Your task to perform on an android device: turn notification dots off Image 0: 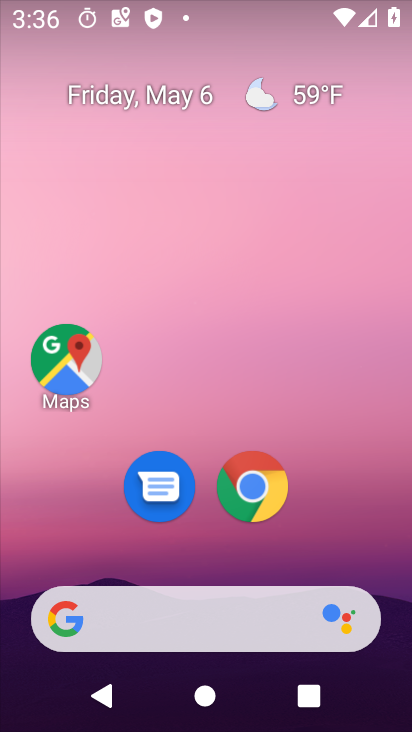
Step 0: drag from (318, 538) to (211, 51)
Your task to perform on an android device: turn notification dots off Image 1: 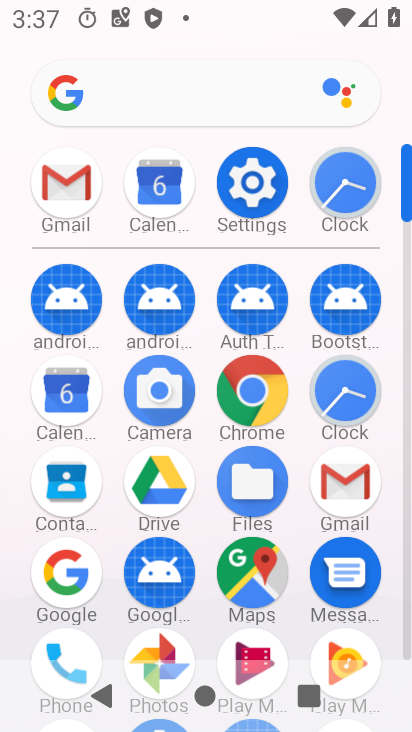
Step 1: click (254, 188)
Your task to perform on an android device: turn notification dots off Image 2: 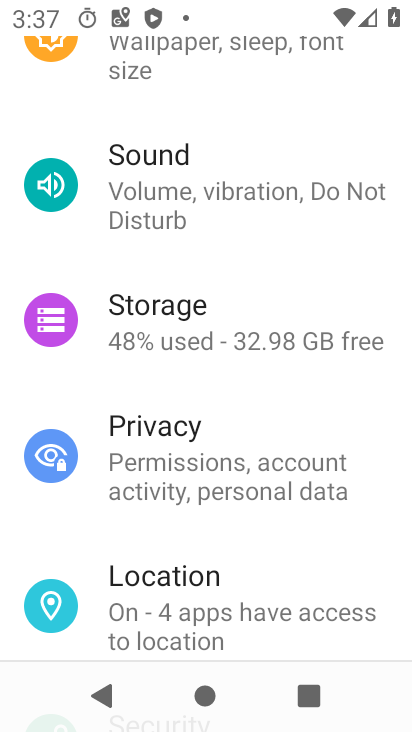
Step 2: drag from (231, 271) to (257, 575)
Your task to perform on an android device: turn notification dots off Image 3: 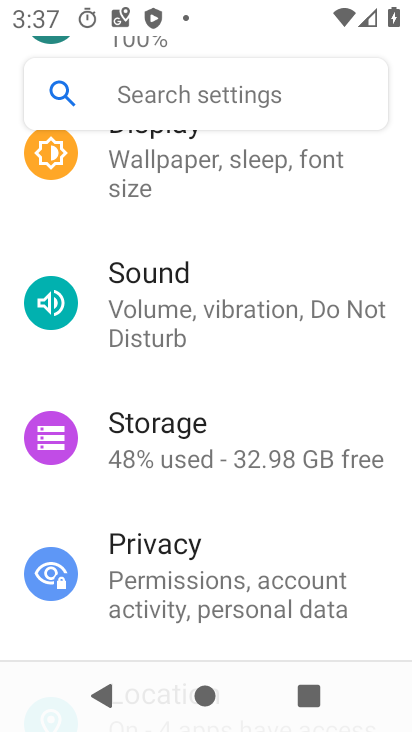
Step 3: drag from (200, 218) to (358, 715)
Your task to perform on an android device: turn notification dots off Image 4: 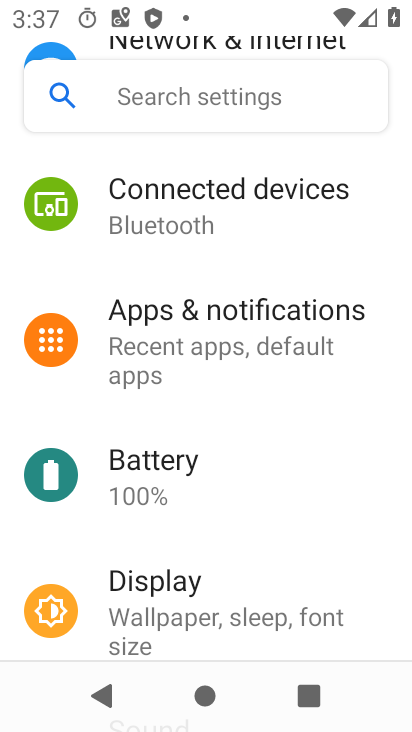
Step 4: click (250, 315)
Your task to perform on an android device: turn notification dots off Image 5: 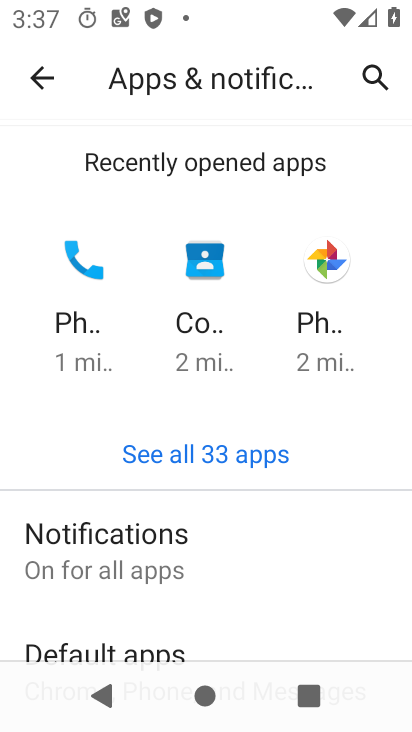
Step 5: click (119, 529)
Your task to perform on an android device: turn notification dots off Image 6: 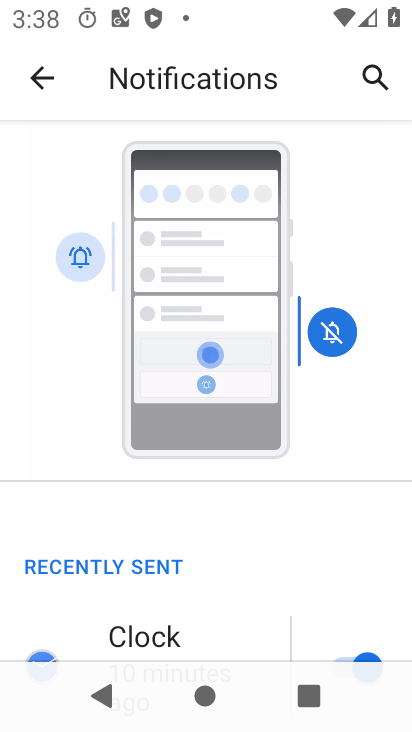
Step 6: drag from (269, 549) to (234, 195)
Your task to perform on an android device: turn notification dots off Image 7: 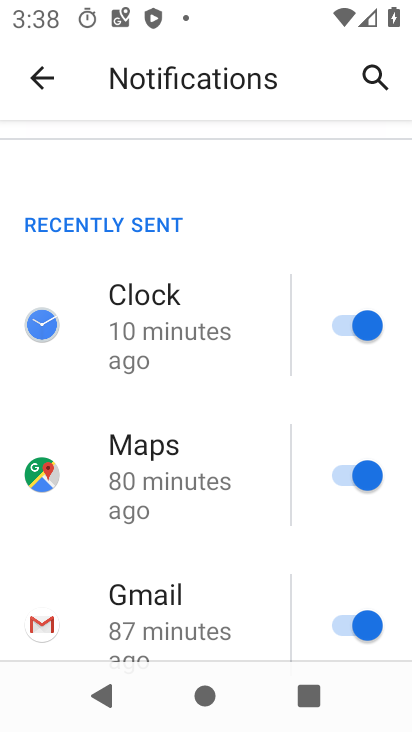
Step 7: drag from (226, 579) to (183, 128)
Your task to perform on an android device: turn notification dots off Image 8: 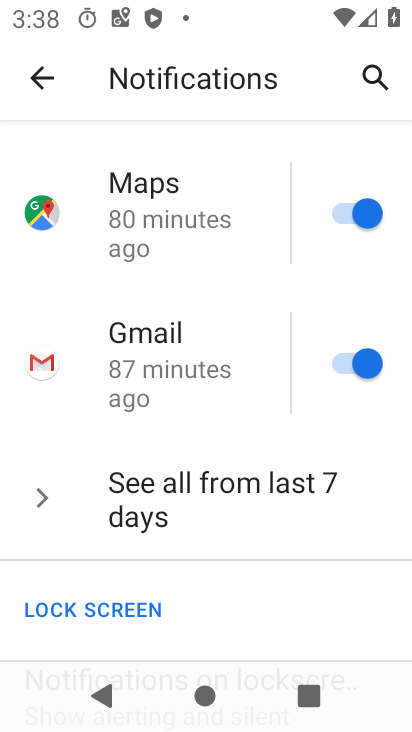
Step 8: drag from (176, 530) to (169, 201)
Your task to perform on an android device: turn notification dots off Image 9: 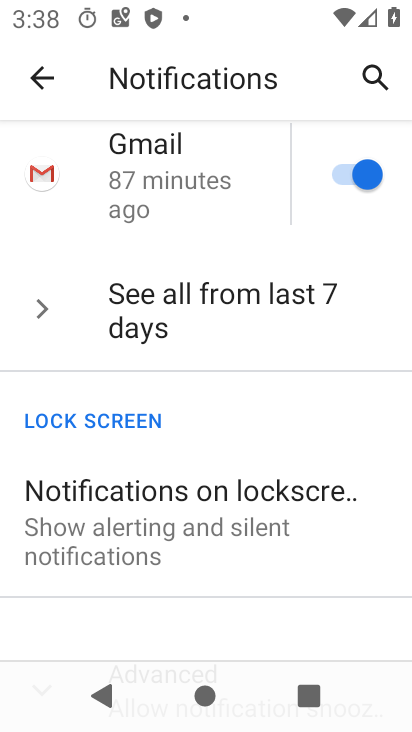
Step 9: drag from (197, 515) to (183, 198)
Your task to perform on an android device: turn notification dots off Image 10: 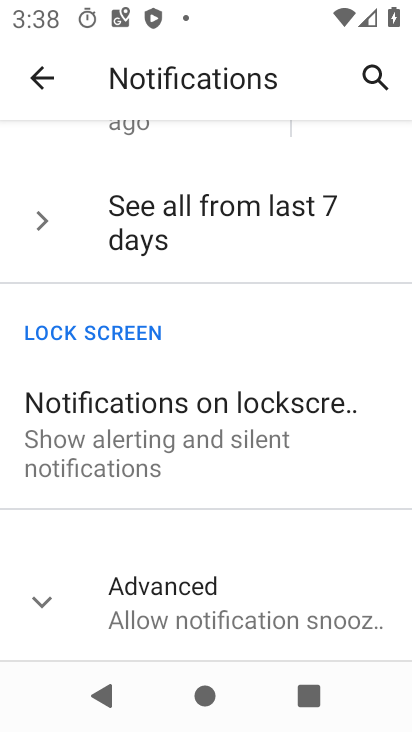
Step 10: click (66, 599)
Your task to perform on an android device: turn notification dots off Image 11: 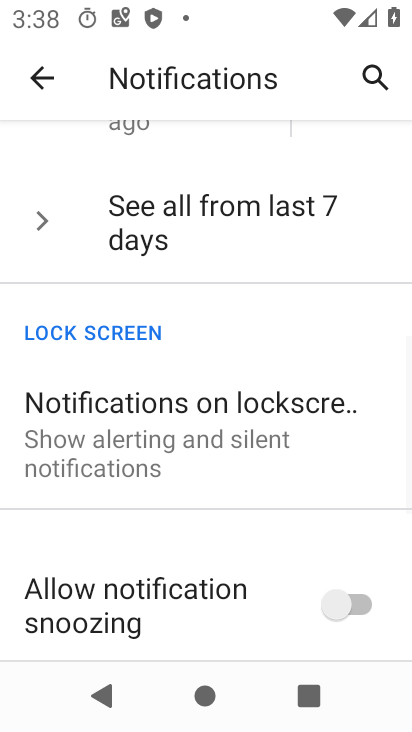
Step 11: task complete